Your task to perform on an android device: Add "razer blade" to the cart on amazon Image 0: 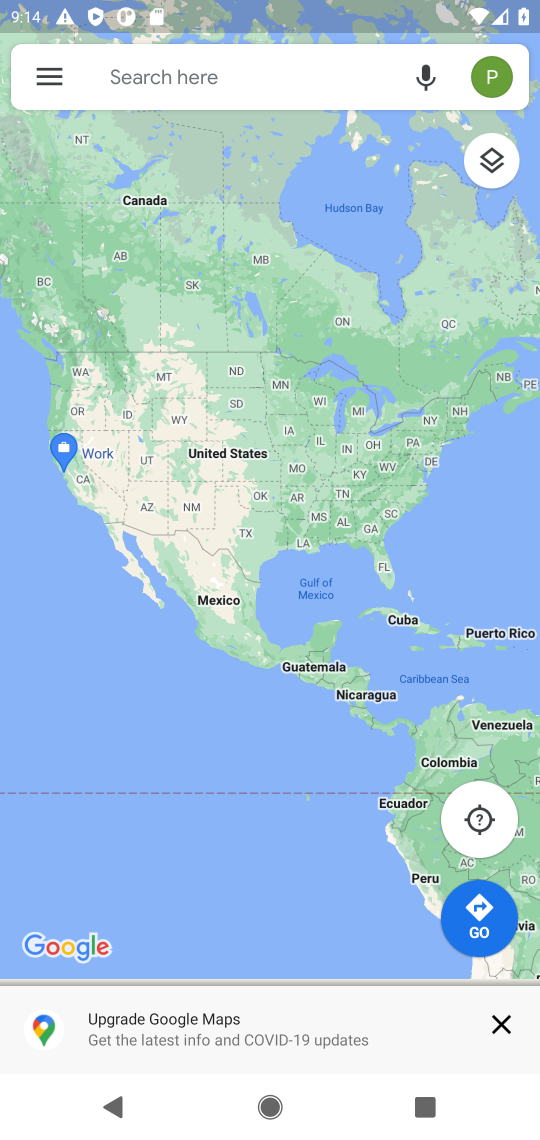
Step 0: press home button
Your task to perform on an android device: Add "razer blade" to the cart on amazon Image 1: 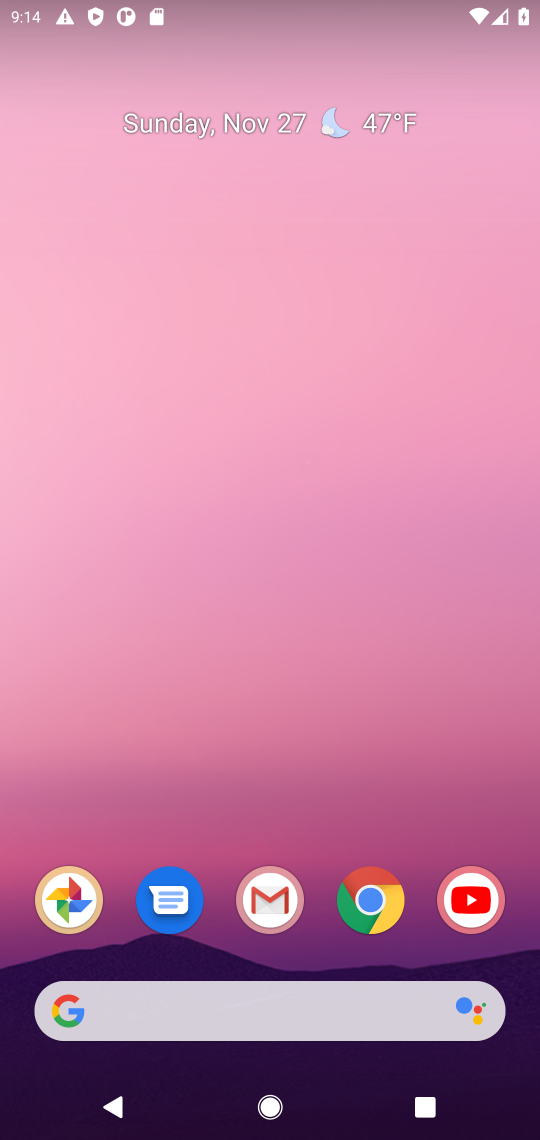
Step 1: click (384, 899)
Your task to perform on an android device: Add "razer blade" to the cart on amazon Image 2: 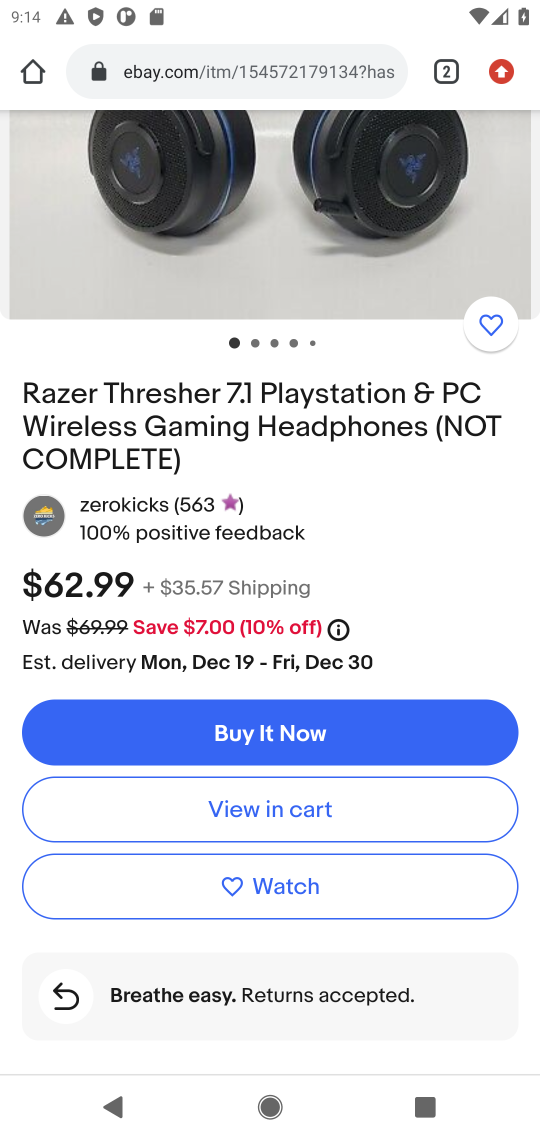
Step 2: click (243, 61)
Your task to perform on an android device: Add "razer blade" to the cart on amazon Image 3: 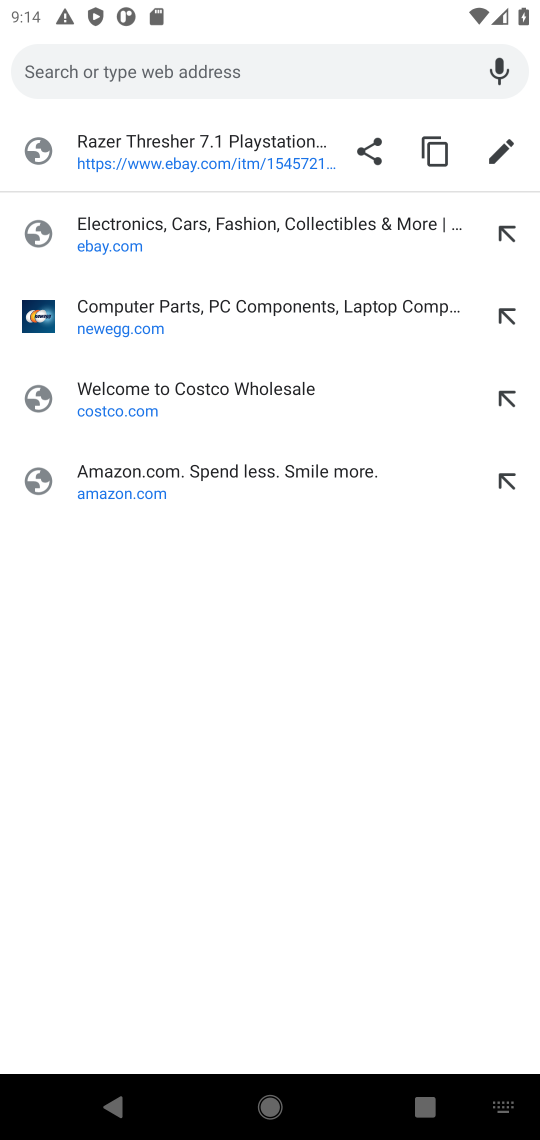
Step 3: click (106, 472)
Your task to perform on an android device: Add "razer blade" to the cart on amazon Image 4: 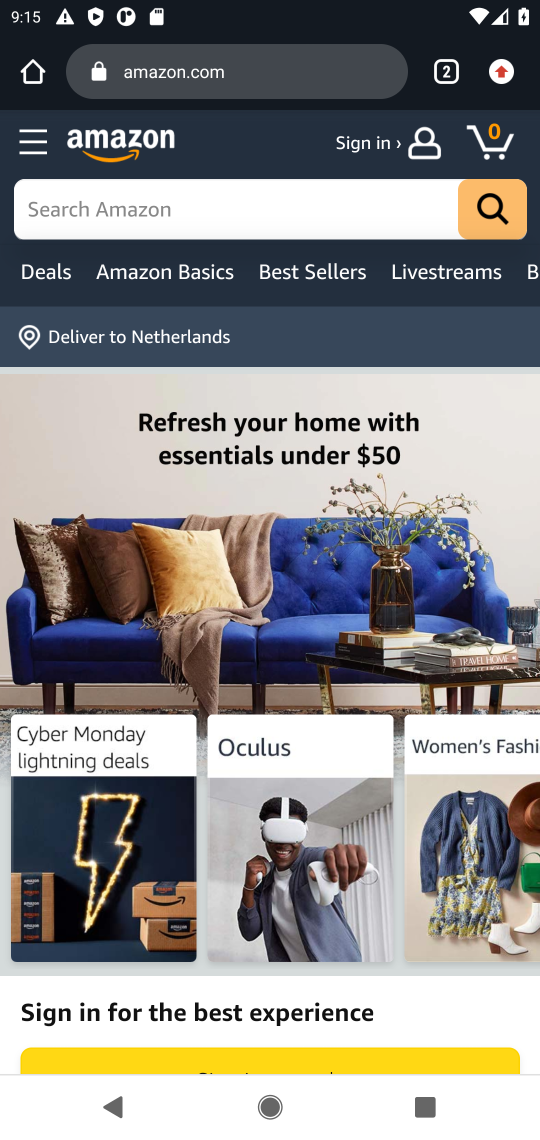
Step 4: click (103, 210)
Your task to perform on an android device: Add "razer blade" to the cart on amazon Image 5: 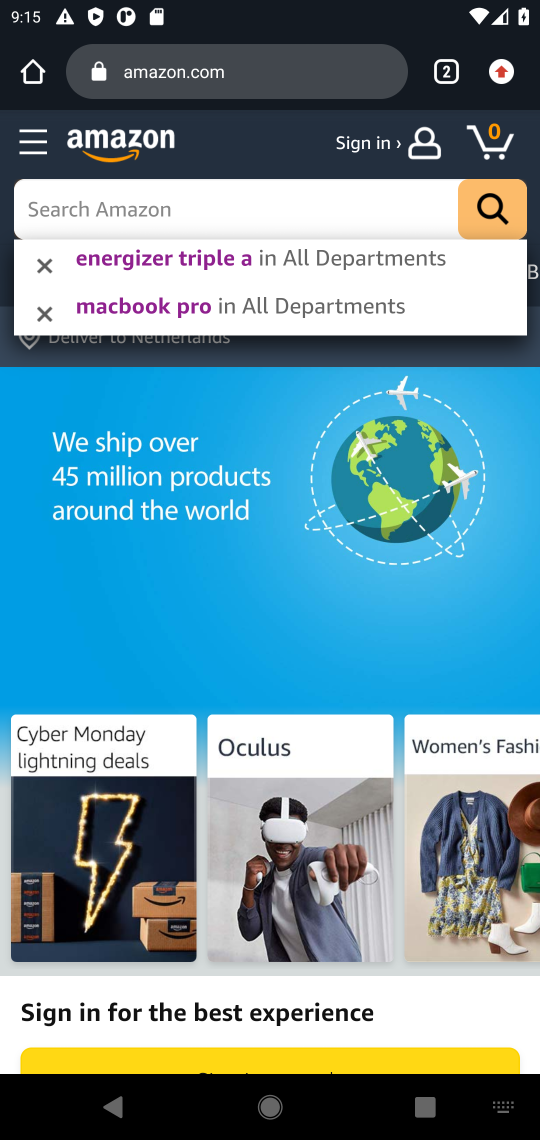
Step 5: type "razer blade"
Your task to perform on an android device: Add "razer blade" to the cart on amazon Image 6: 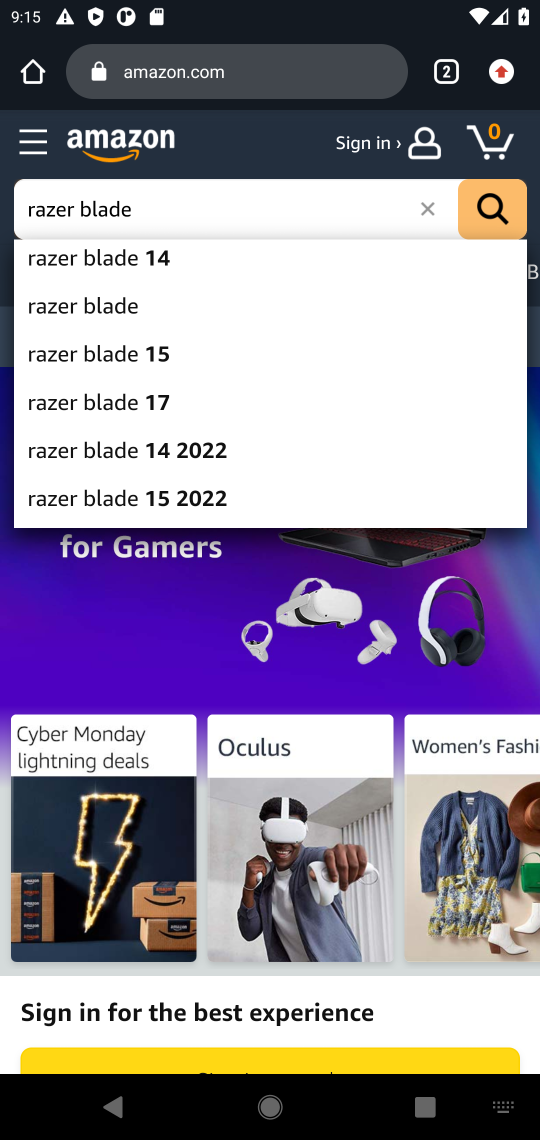
Step 6: click (63, 302)
Your task to perform on an android device: Add "razer blade" to the cart on amazon Image 7: 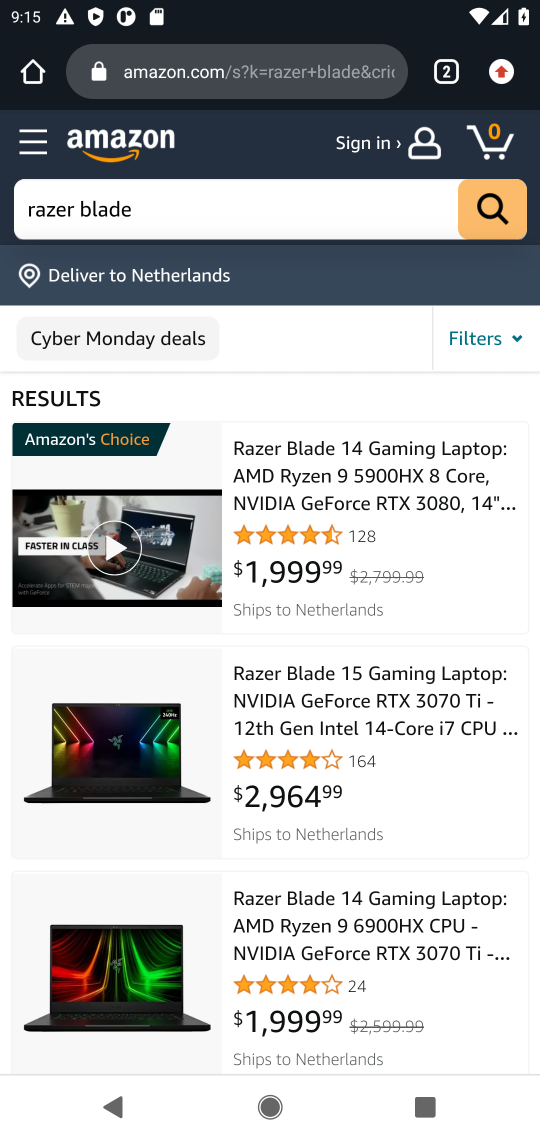
Step 7: click (301, 481)
Your task to perform on an android device: Add "razer blade" to the cart on amazon Image 8: 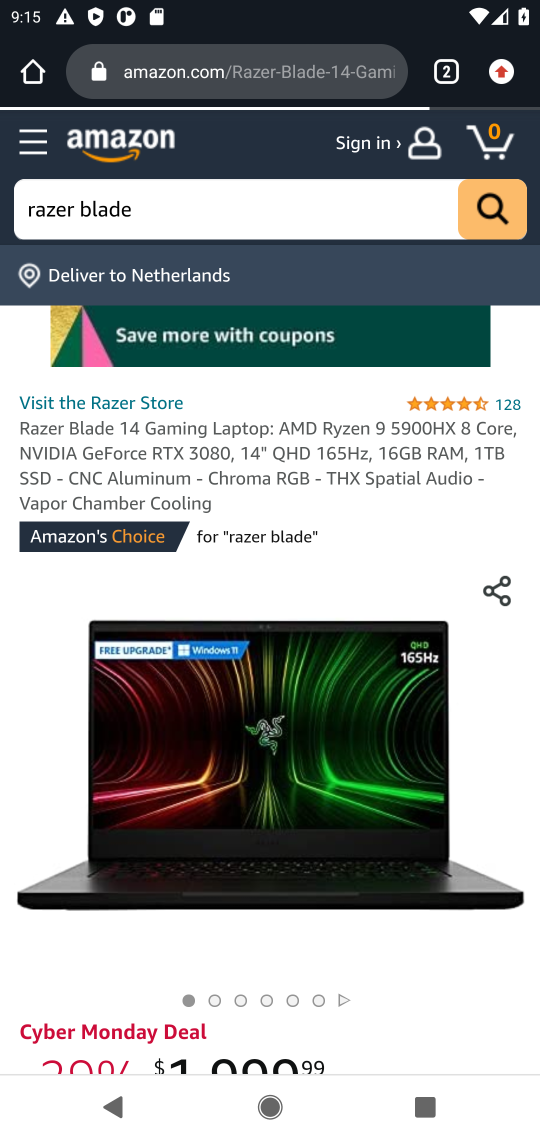
Step 8: drag from (237, 835) to (264, 474)
Your task to perform on an android device: Add "razer blade" to the cart on amazon Image 9: 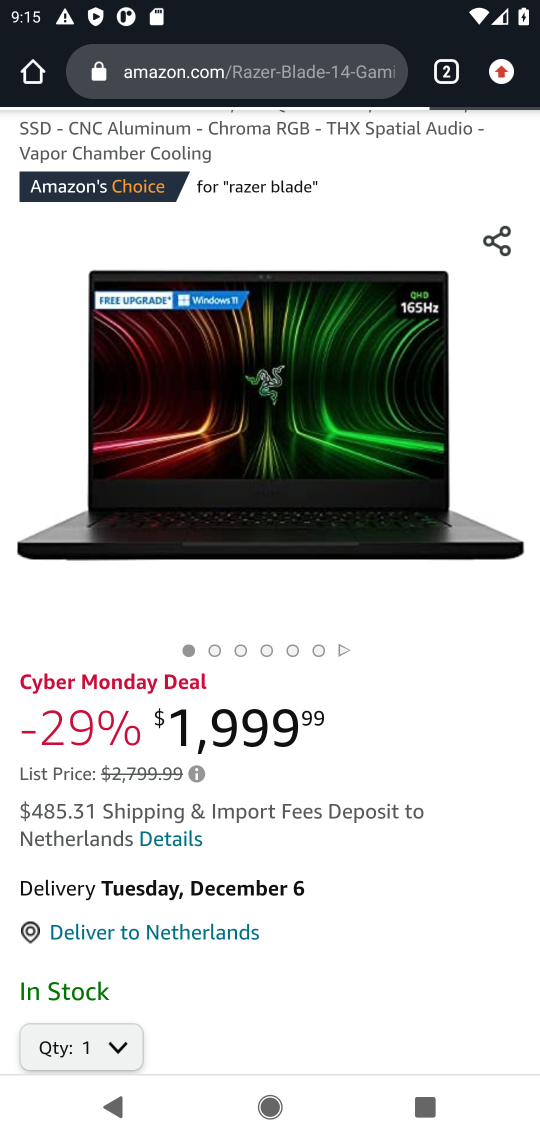
Step 9: drag from (248, 841) to (253, 430)
Your task to perform on an android device: Add "razer blade" to the cart on amazon Image 10: 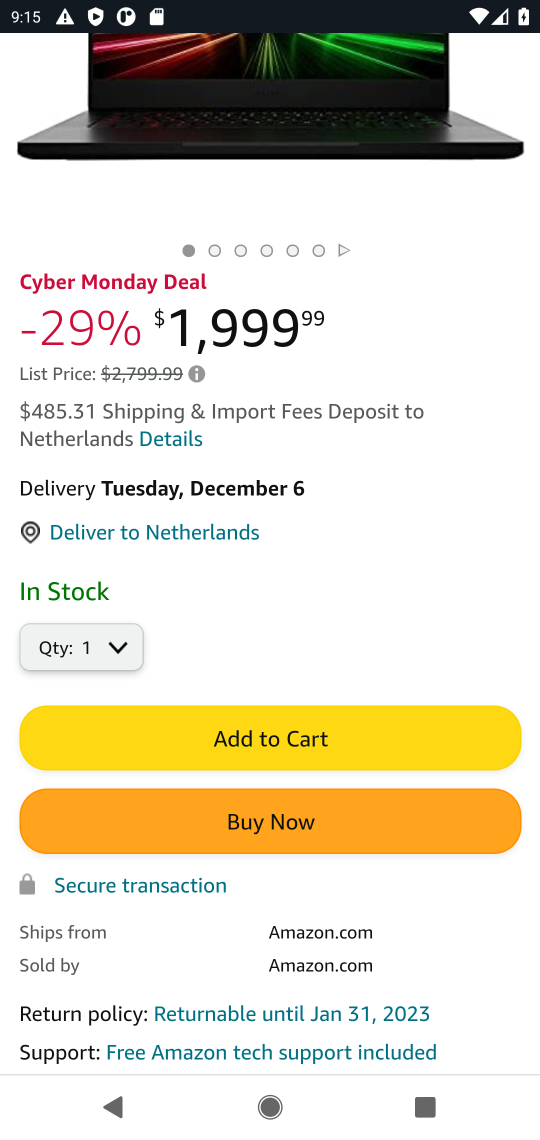
Step 10: click (272, 740)
Your task to perform on an android device: Add "razer blade" to the cart on amazon Image 11: 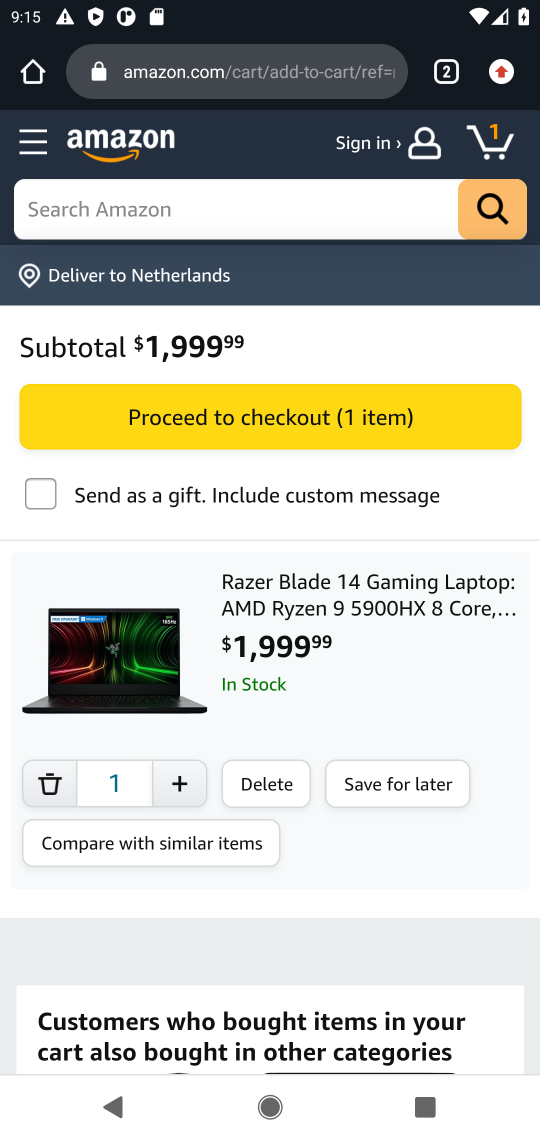
Step 11: task complete